Your task to perform on an android device: make emails show in primary in the gmail app Image 0: 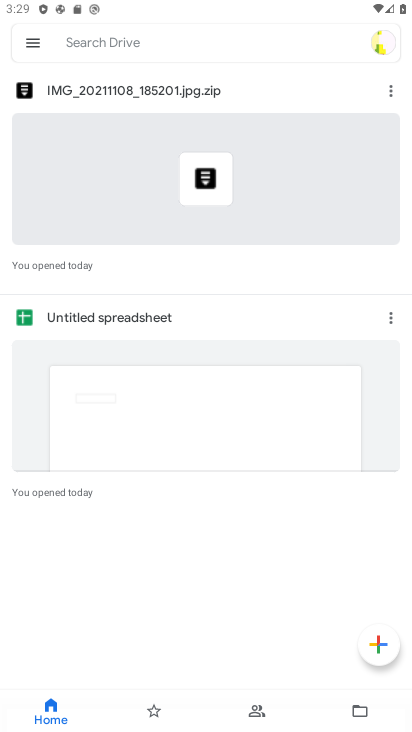
Step 0: press home button
Your task to perform on an android device: make emails show in primary in the gmail app Image 1: 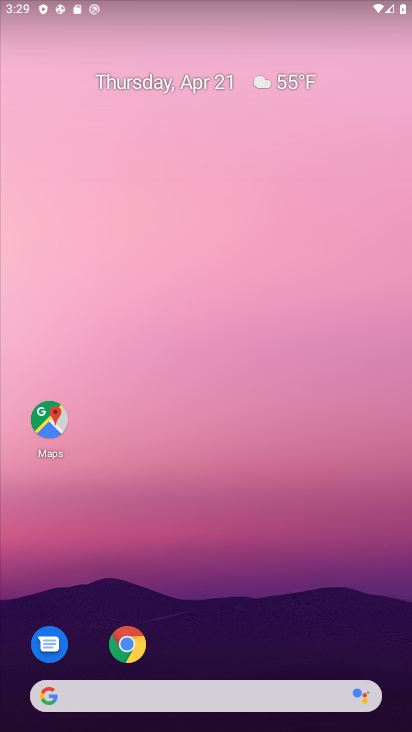
Step 1: drag from (208, 712) to (208, 183)
Your task to perform on an android device: make emails show in primary in the gmail app Image 2: 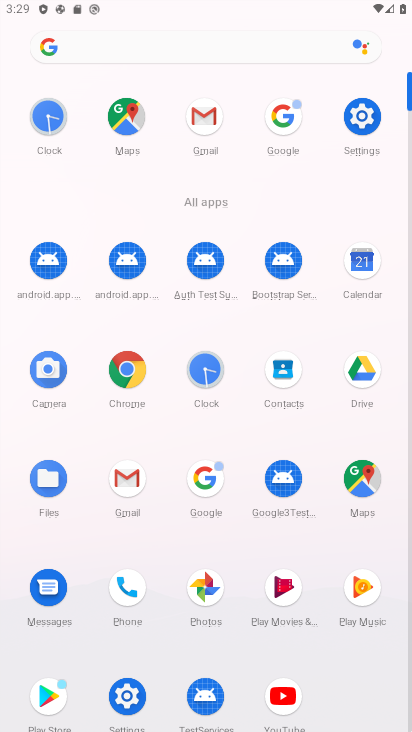
Step 2: click (125, 471)
Your task to perform on an android device: make emails show in primary in the gmail app Image 3: 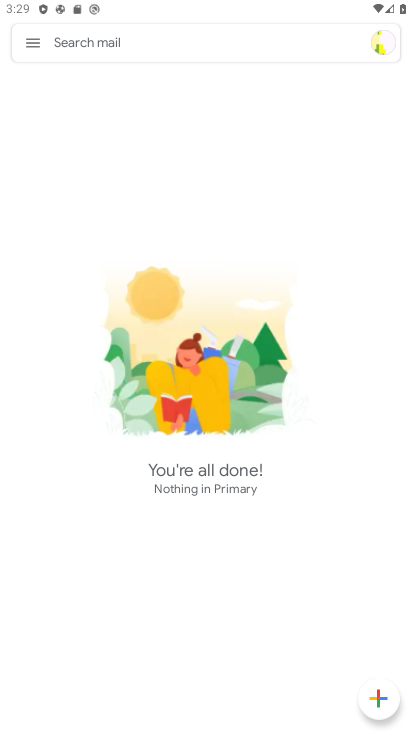
Step 3: click (29, 43)
Your task to perform on an android device: make emails show in primary in the gmail app Image 4: 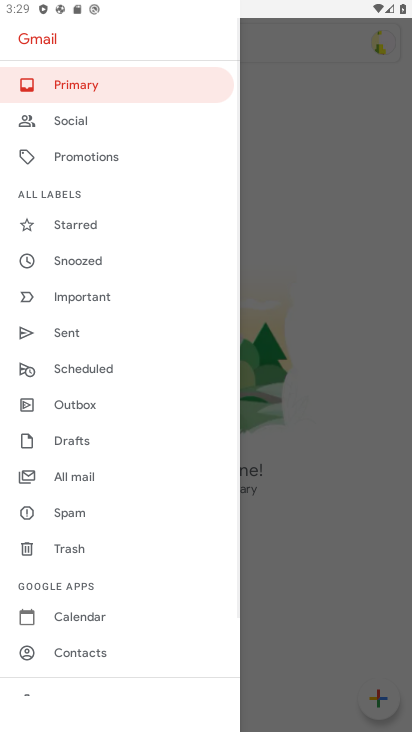
Step 4: drag from (99, 635) to (103, 197)
Your task to perform on an android device: make emails show in primary in the gmail app Image 5: 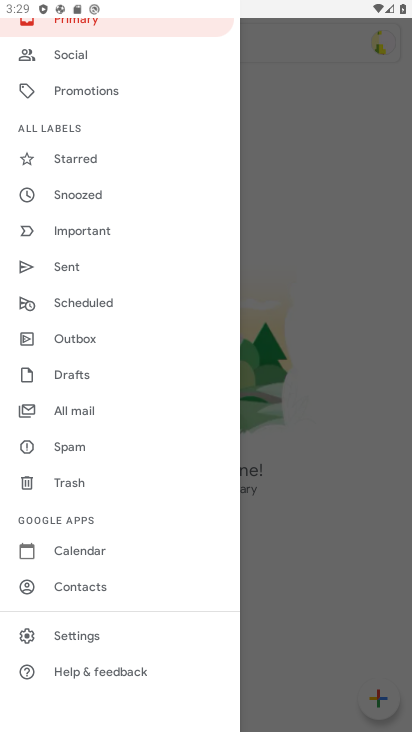
Step 5: click (73, 635)
Your task to perform on an android device: make emails show in primary in the gmail app Image 6: 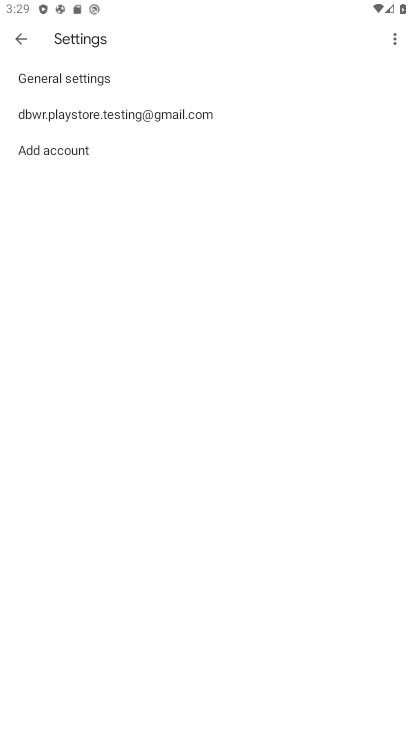
Step 6: click (103, 114)
Your task to perform on an android device: make emails show in primary in the gmail app Image 7: 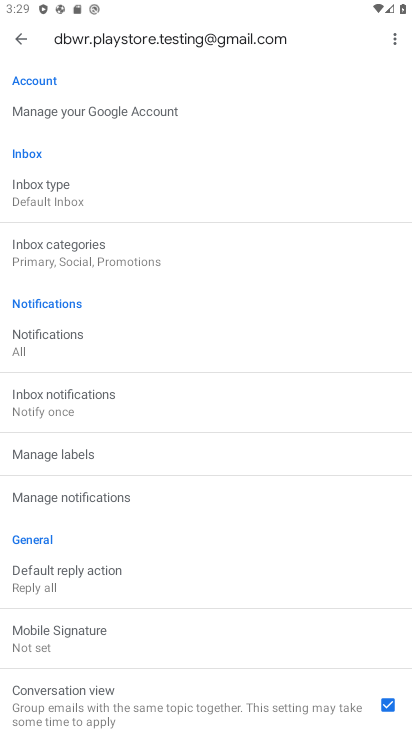
Step 7: click (25, 256)
Your task to perform on an android device: make emails show in primary in the gmail app Image 8: 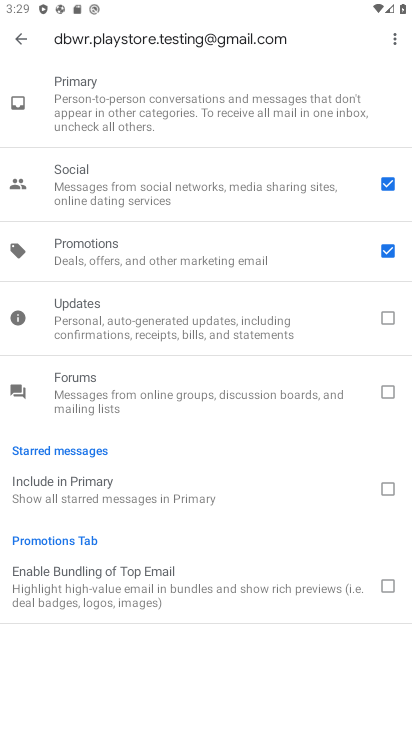
Step 8: click (386, 251)
Your task to perform on an android device: make emails show in primary in the gmail app Image 9: 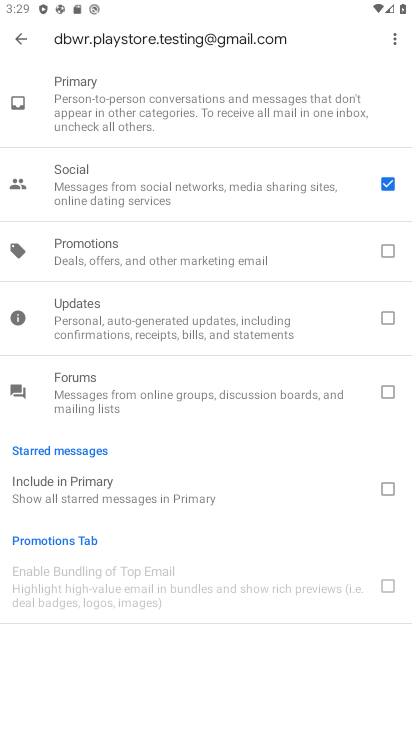
Step 9: click (384, 180)
Your task to perform on an android device: make emails show in primary in the gmail app Image 10: 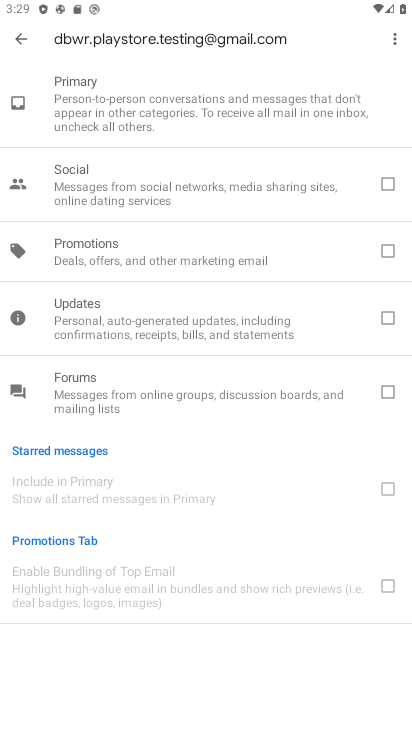
Step 10: click (18, 37)
Your task to perform on an android device: make emails show in primary in the gmail app Image 11: 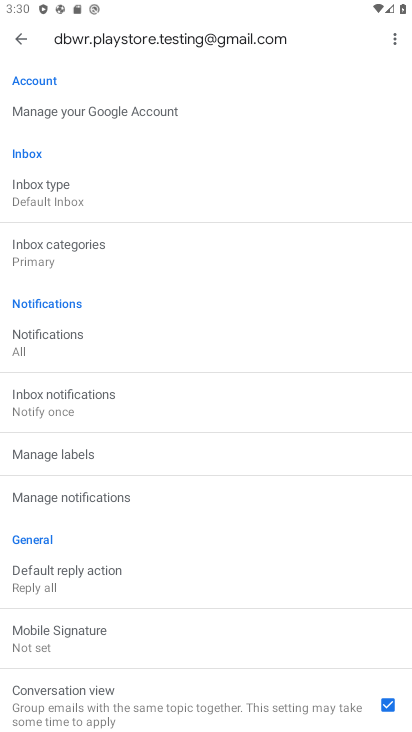
Step 11: task complete